Your task to perform on an android device: Search for pizza restaurants on Maps Image 0: 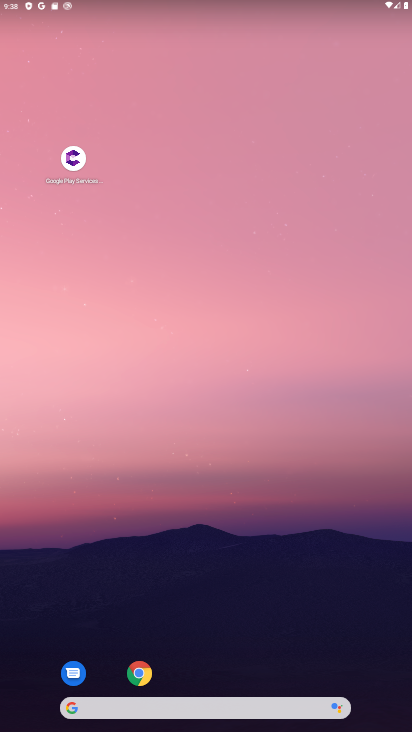
Step 0: drag from (26, 629) to (202, 215)
Your task to perform on an android device: Search for pizza restaurants on Maps Image 1: 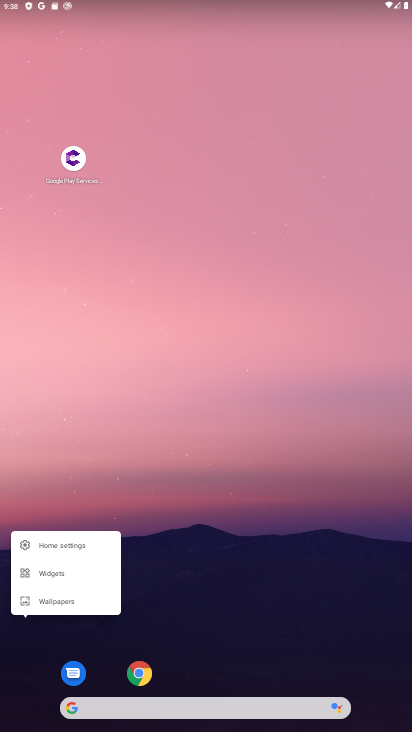
Step 1: drag from (39, 716) to (309, 29)
Your task to perform on an android device: Search for pizza restaurants on Maps Image 2: 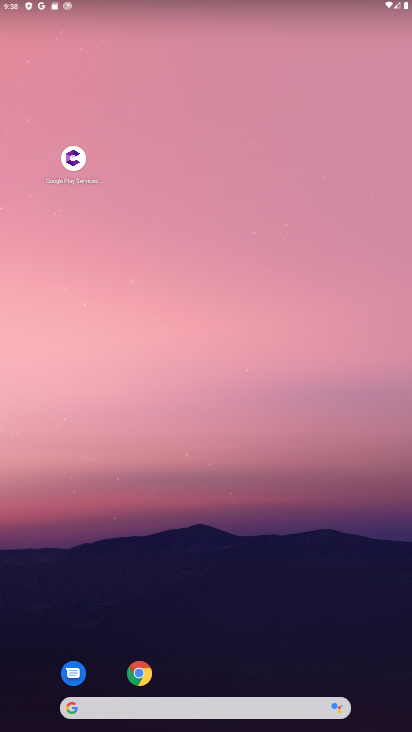
Step 2: drag from (47, 696) to (214, 152)
Your task to perform on an android device: Search for pizza restaurants on Maps Image 3: 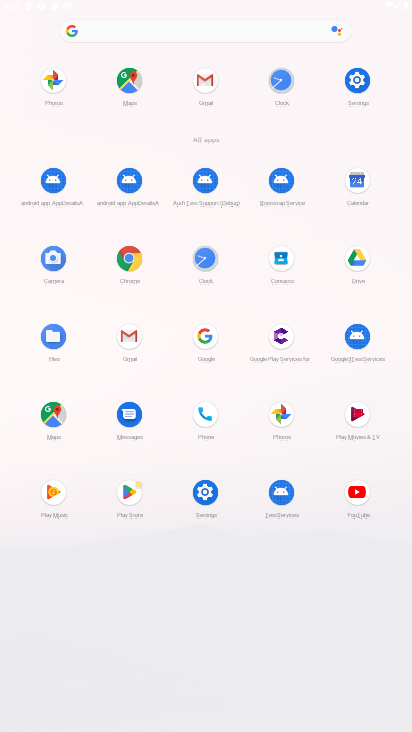
Step 3: click (223, 37)
Your task to perform on an android device: Search for pizza restaurants on Maps Image 4: 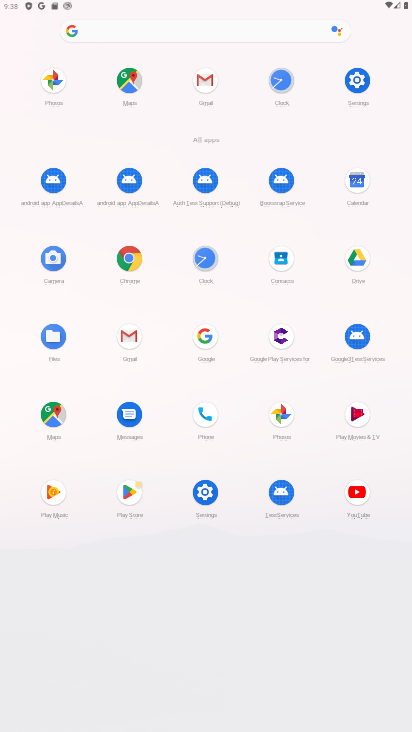
Step 4: drag from (6, 699) to (191, 234)
Your task to perform on an android device: Search for pizza restaurants on Maps Image 5: 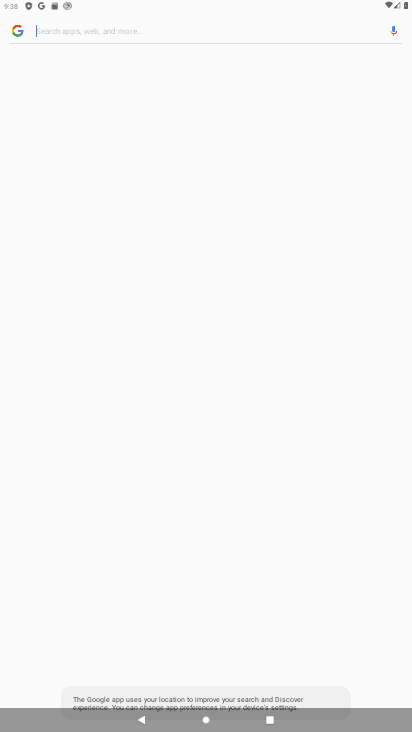
Step 5: click (51, 399)
Your task to perform on an android device: Search for pizza restaurants on Maps Image 6: 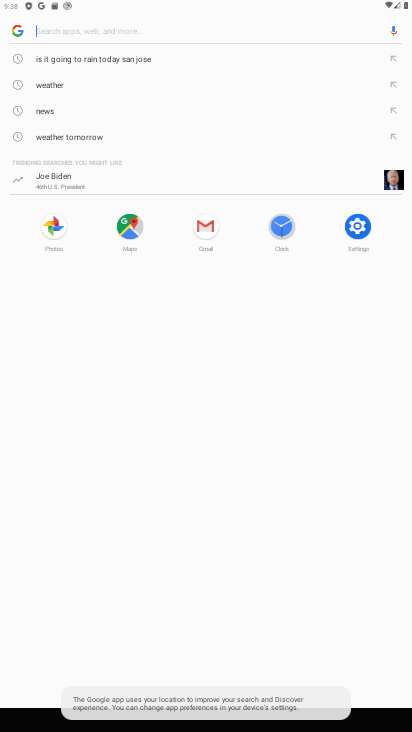
Step 6: click (130, 230)
Your task to perform on an android device: Search for pizza restaurants on Maps Image 7: 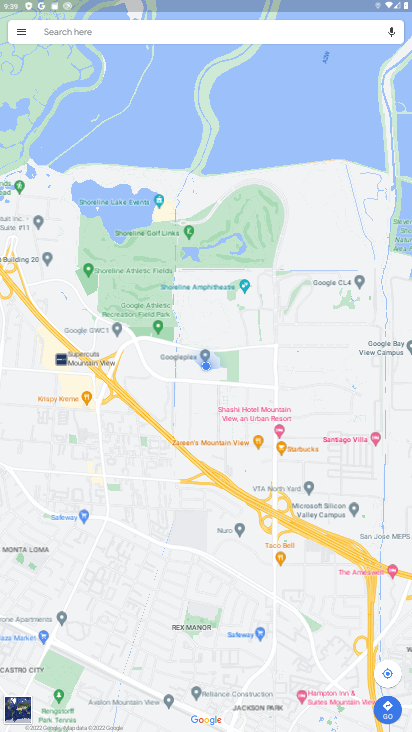
Step 7: click (68, 33)
Your task to perform on an android device: Search for pizza restaurants on Maps Image 8: 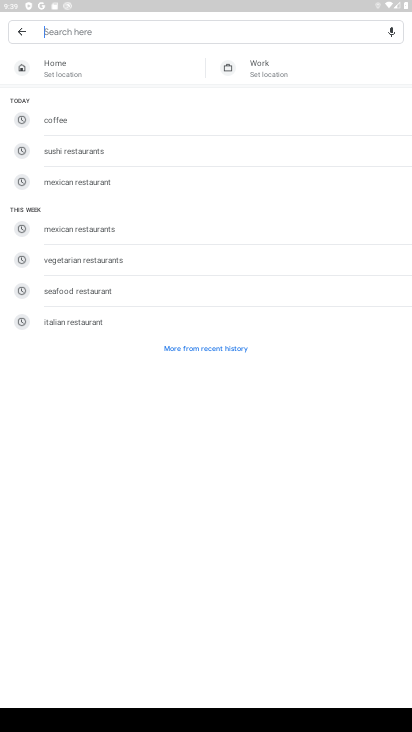
Step 8: type "pizza restaurants "
Your task to perform on an android device: Search for pizza restaurants on Maps Image 9: 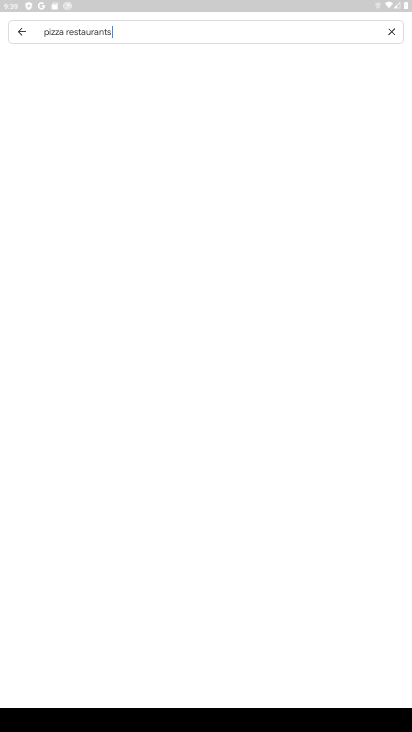
Step 9: type ""
Your task to perform on an android device: Search for pizza restaurants on Maps Image 10: 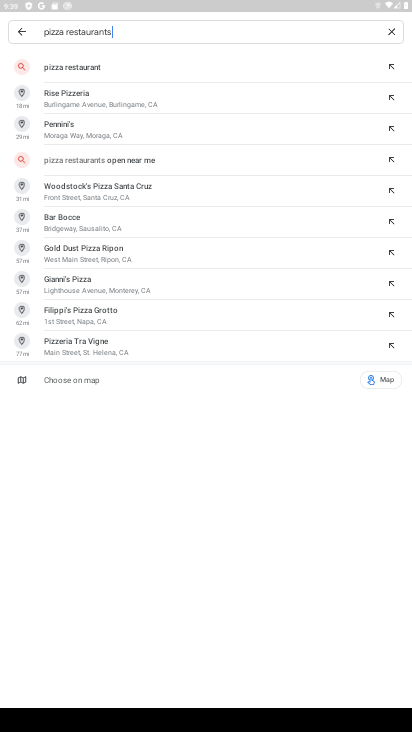
Step 10: click (90, 50)
Your task to perform on an android device: Search for pizza restaurants on Maps Image 11: 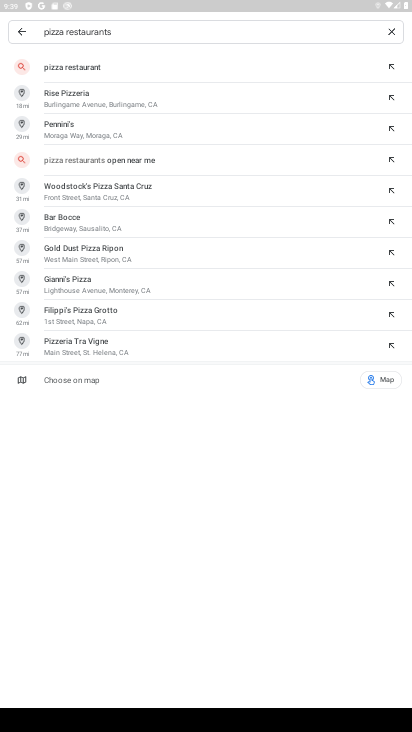
Step 11: click (79, 57)
Your task to perform on an android device: Search for pizza restaurants on Maps Image 12: 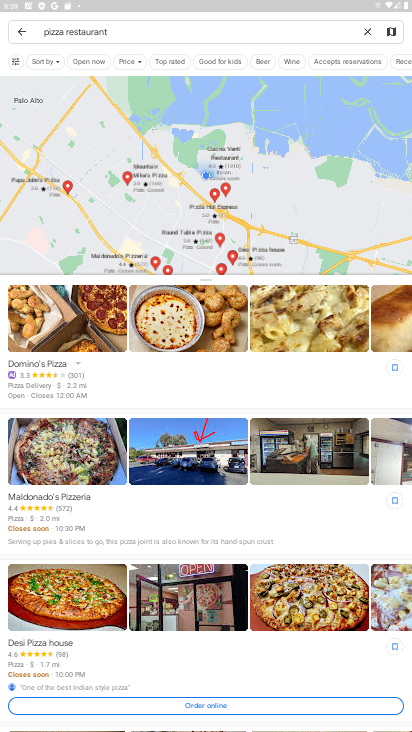
Step 12: task complete